Your task to perform on an android device: check storage Image 0: 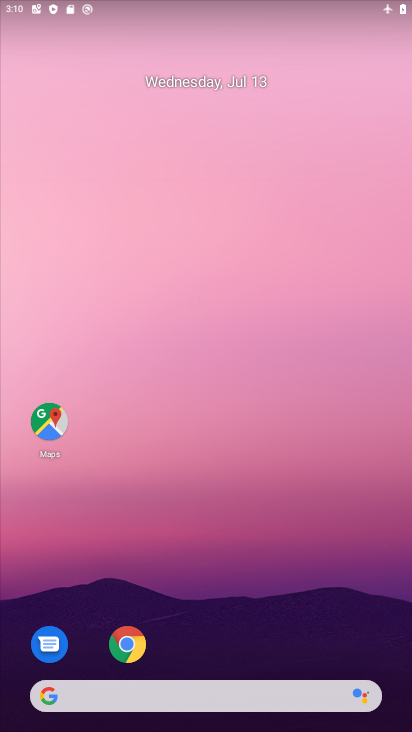
Step 0: drag from (248, 538) to (264, 84)
Your task to perform on an android device: check storage Image 1: 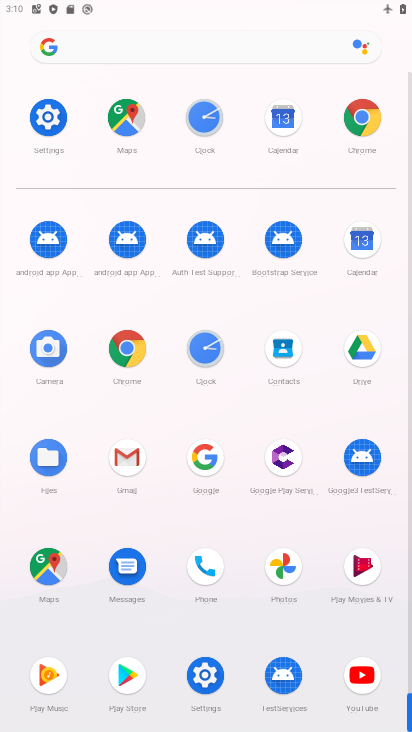
Step 1: click (52, 109)
Your task to perform on an android device: check storage Image 2: 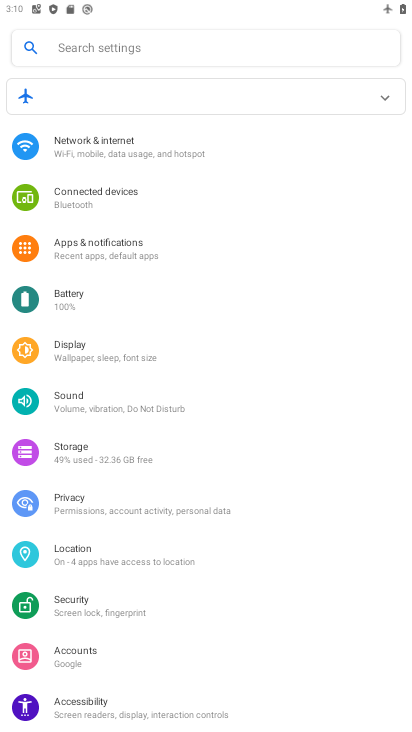
Step 2: click (89, 453)
Your task to perform on an android device: check storage Image 3: 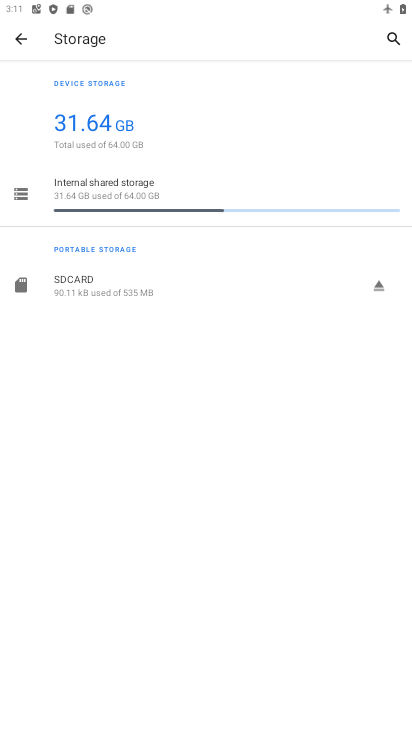
Step 3: task complete